Your task to perform on an android device: What's the weather? Image 0: 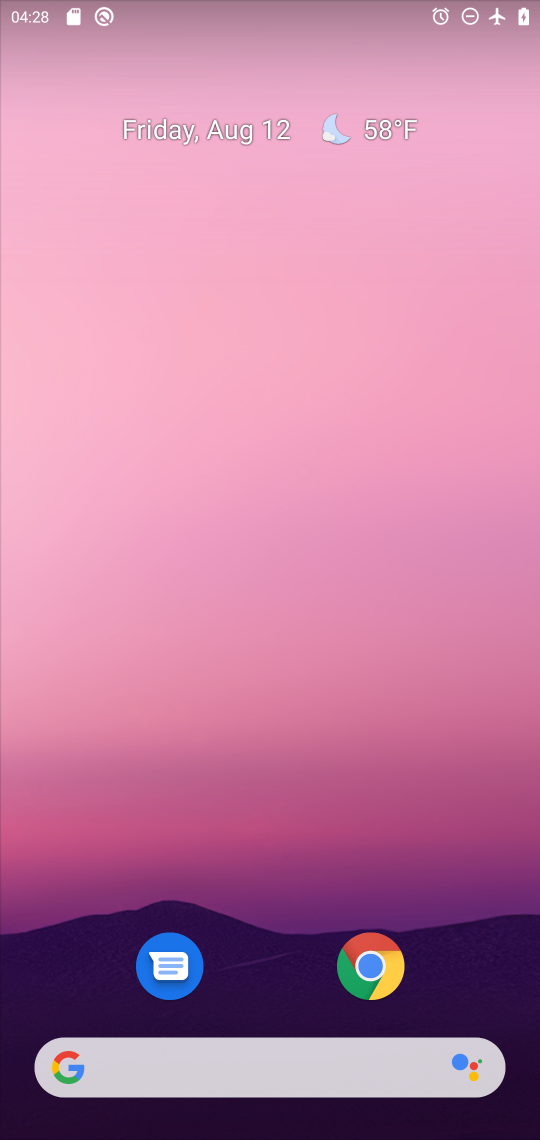
Step 0: click (381, 128)
Your task to perform on an android device: What's the weather? Image 1: 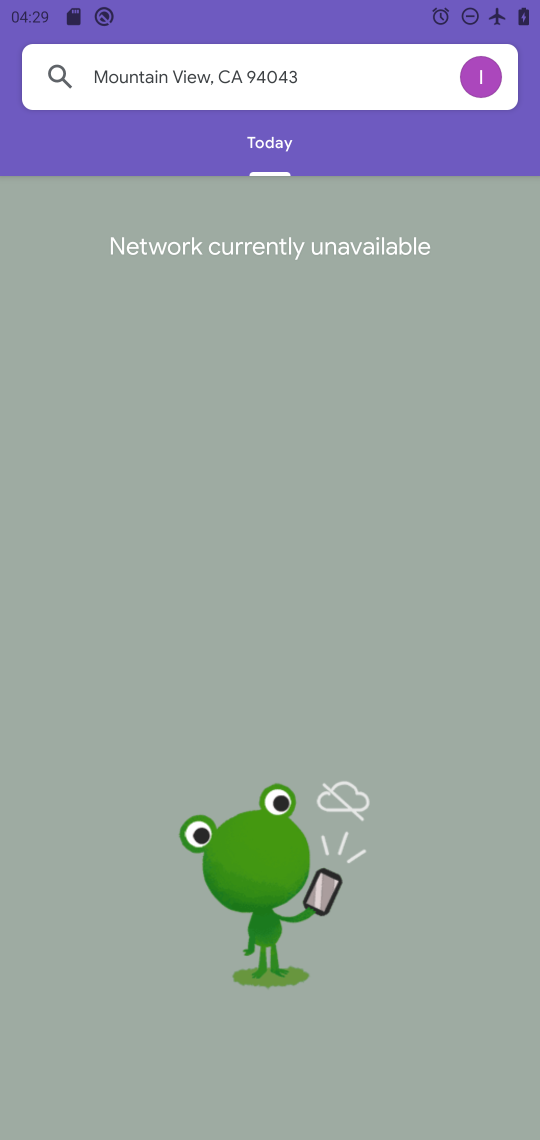
Step 1: task complete